Your task to perform on an android device: Do I have any events tomorrow? Image 0: 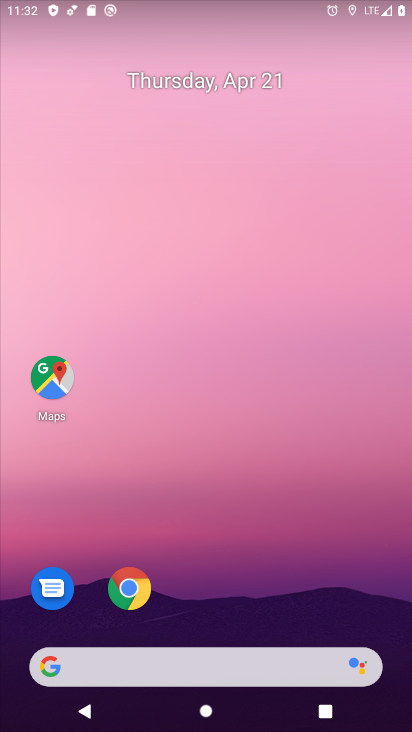
Step 0: drag from (301, 698) to (246, 127)
Your task to perform on an android device: Do I have any events tomorrow? Image 1: 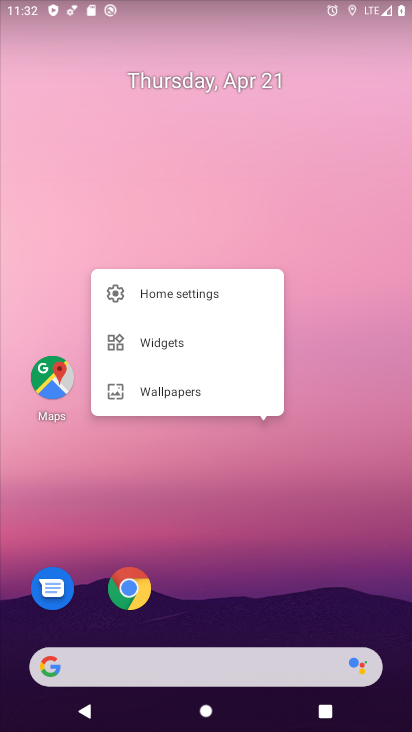
Step 1: click (253, 162)
Your task to perform on an android device: Do I have any events tomorrow? Image 2: 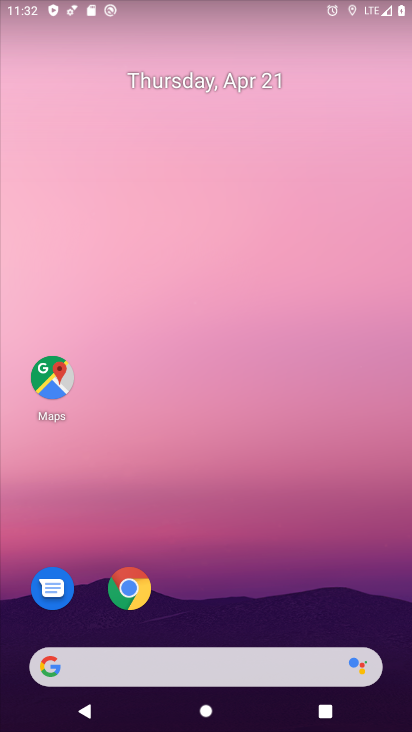
Step 2: drag from (257, 689) to (276, 163)
Your task to perform on an android device: Do I have any events tomorrow? Image 3: 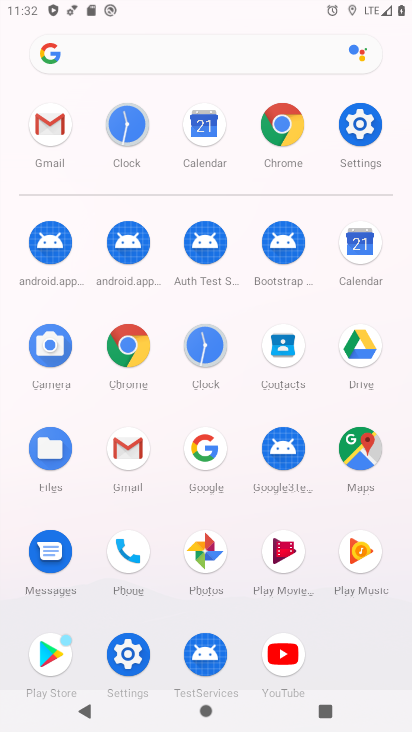
Step 3: click (179, 57)
Your task to perform on an android device: Do I have any events tomorrow? Image 4: 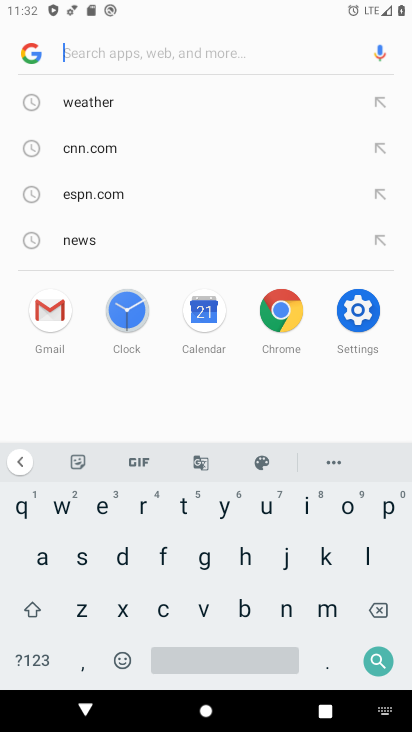
Step 4: click (98, 114)
Your task to perform on an android device: Do I have any events tomorrow? Image 5: 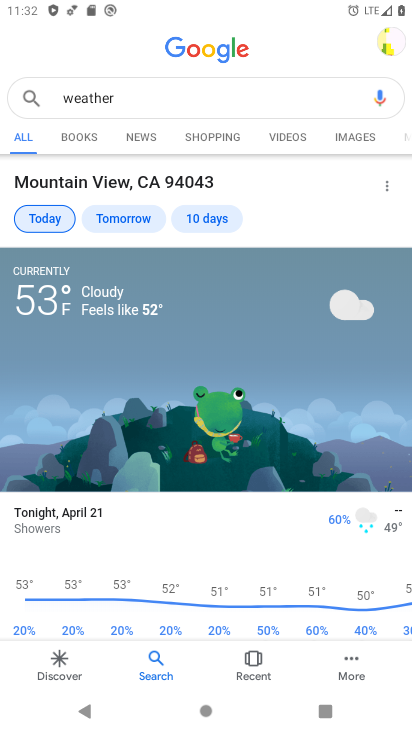
Step 5: click (117, 217)
Your task to perform on an android device: Do I have any events tomorrow? Image 6: 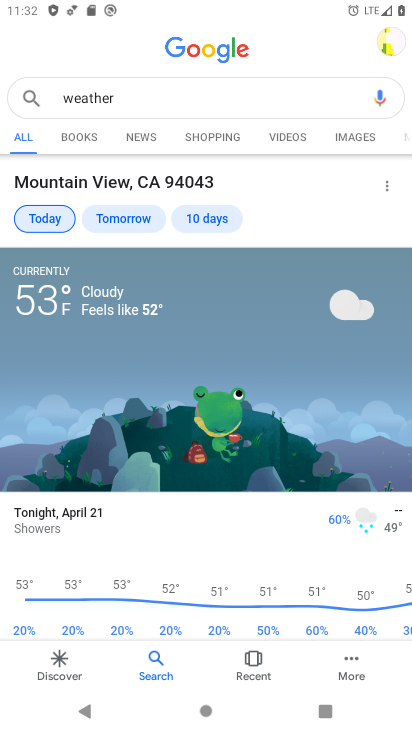
Step 6: click (117, 217)
Your task to perform on an android device: Do I have any events tomorrow? Image 7: 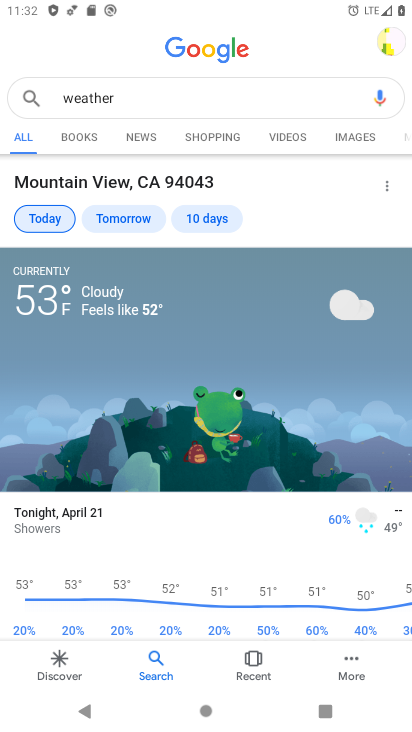
Step 7: click (121, 213)
Your task to perform on an android device: Do I have any events tomorrow? Image 8: 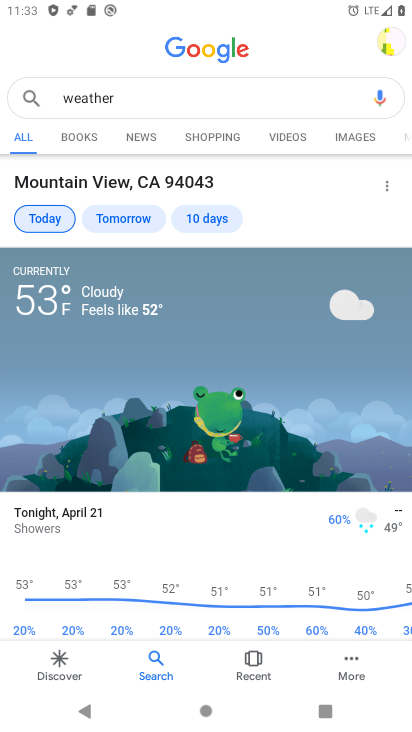
Step 8: click (134, 197)
Your task to perform on an android device: Do I have any events tomorrow? Image 9: 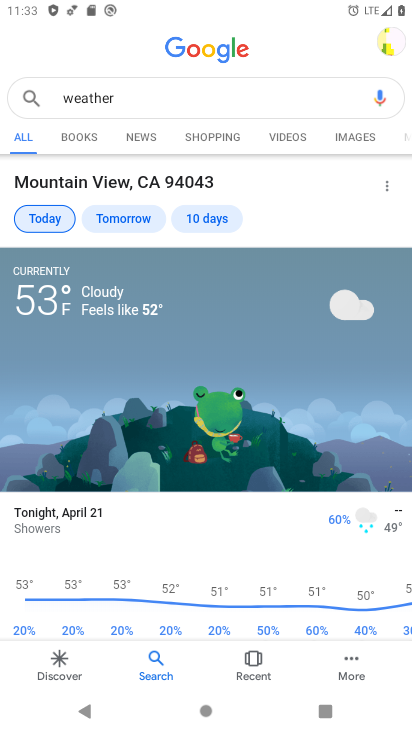
Step 9: click (124, 215)
Your task to perform on an android device: Do I have any events tomorrow? Image 10: 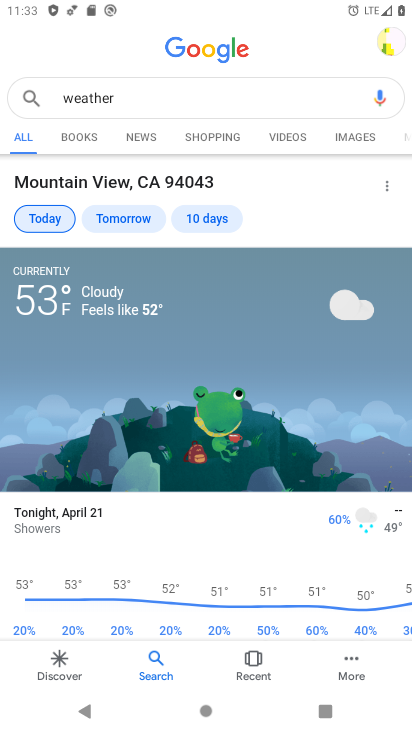
Step 10: task complete